Your task to perform on an android device: Open Google Chrome and open the bookmarks view Image 0: 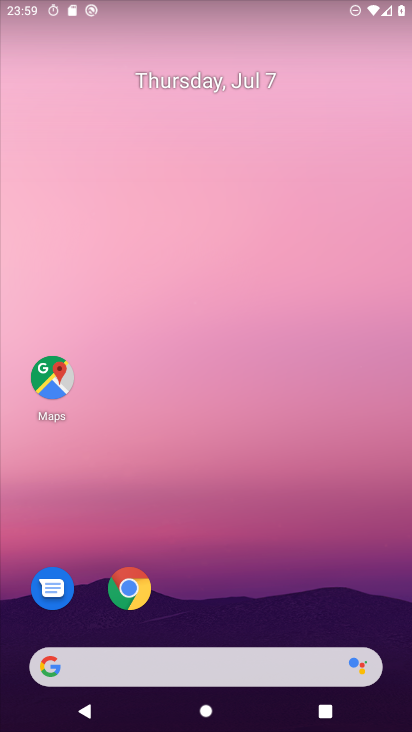
Step 0: drag from (263, 604) to (305, 89)
Your task to perform on an android device: Open Google Chrome and open the bookmarks view Image 1: 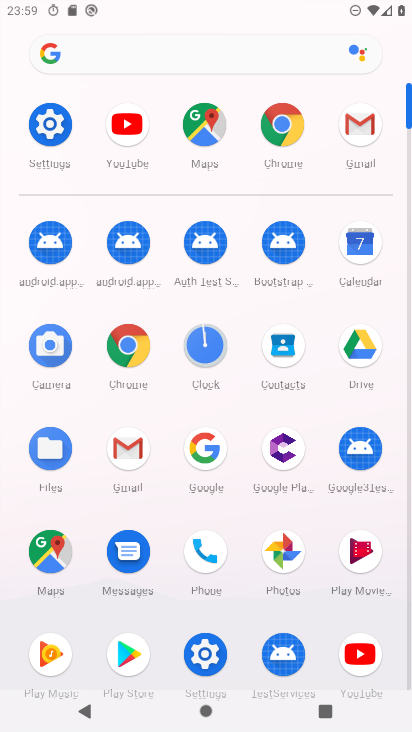
Step 1: click (285, 126)
Your task to perform on an android device: Open Google Chrome and open the bookmarks view Image 2: 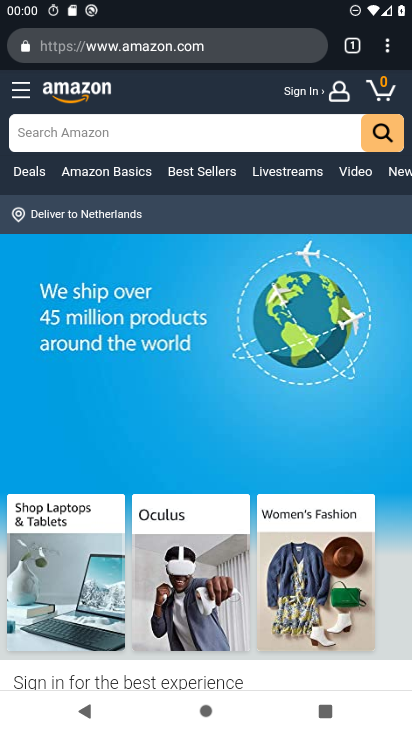
Step 2: task complete